Your task to perform on an android device: move a message to another label in the gmail app Image 0: 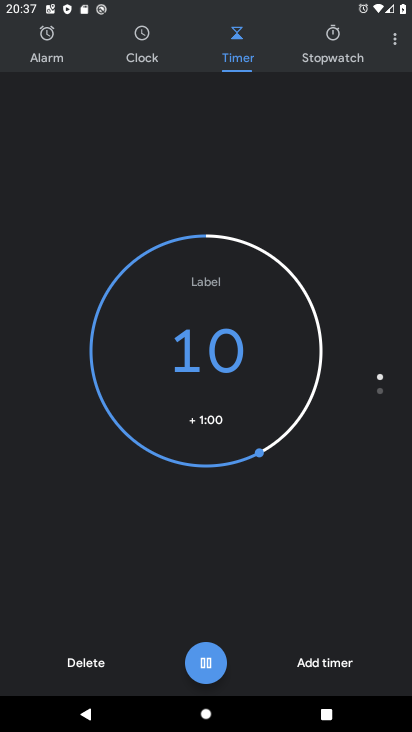
Step 0: press home button
Your task to perform on an android device: move a message to another label in the gmail app Image 1: 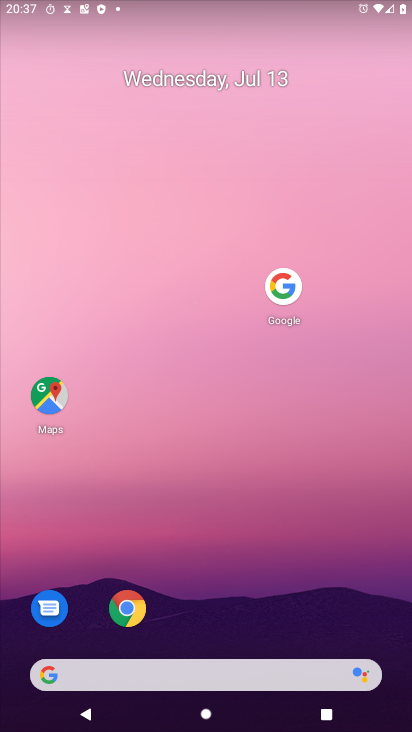
Step 1: drag from (165, 643) to (215, 20)
Your task to perform on an android device: move a message to another label in the gmail app Image 2: 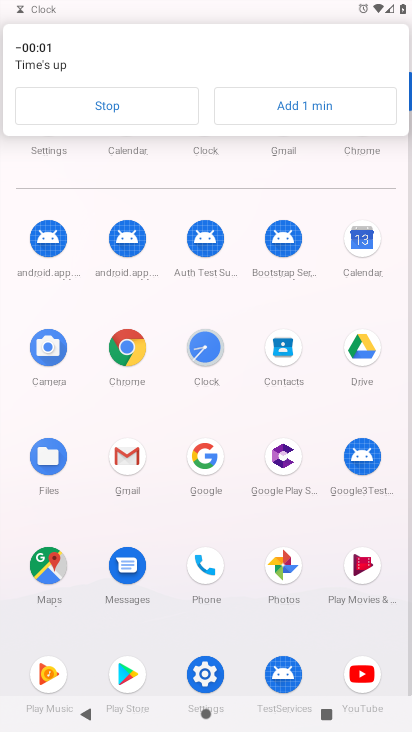
Step 2: click (118, 455)
Your task to perform on an android device: move a message to another label in the gmail app Image 3: 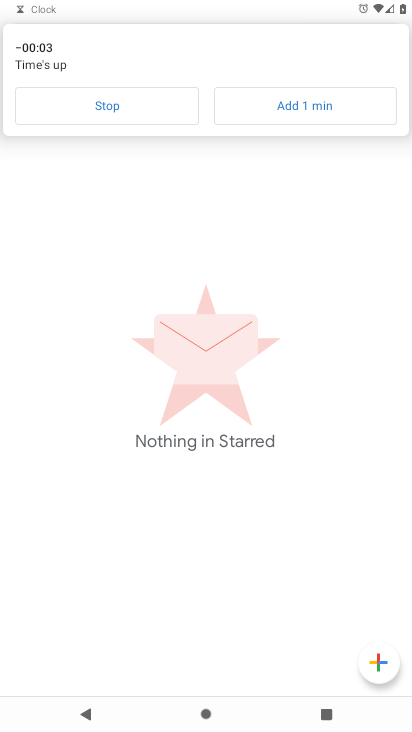
Step 3: click (132, 113)
Your task to perform on an android device: move a message to another label in the gmail app Image 4: 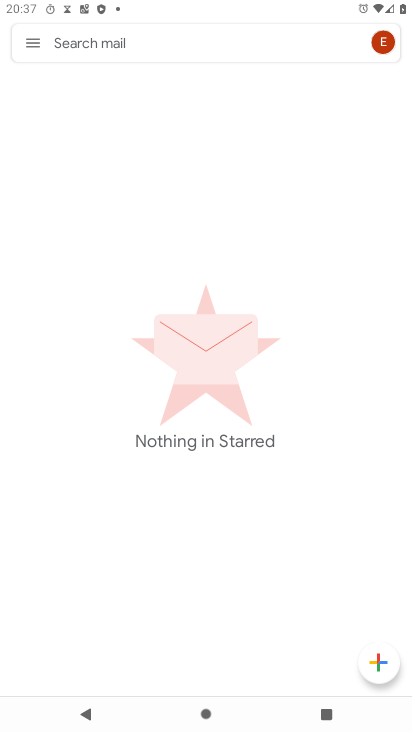
Step 4: task complete